Your task to perform on an android device: Search for Mexican restaurants on Maps Image 0: 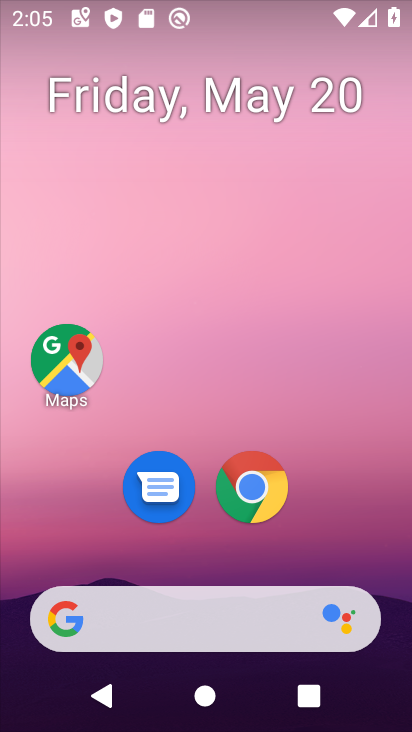
Step 0: click (55, 426)
Your task to perform on an android device: Search for Mexican restaurants on Maps Image 1: 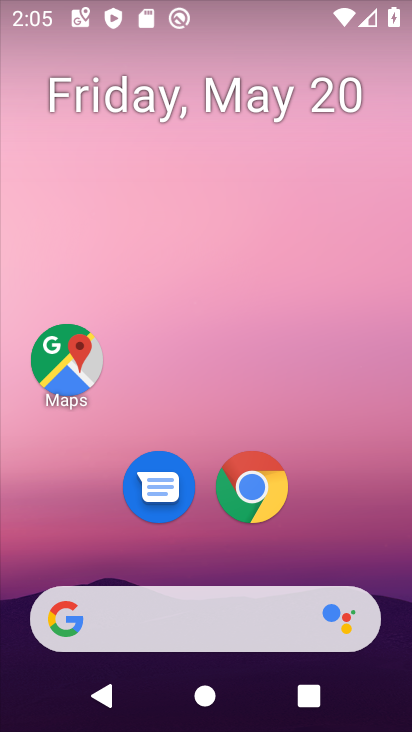
Step 1: click (45, 376)
Your task to perform on an android device: Search for Mexican restaurants on Maps Image 2: 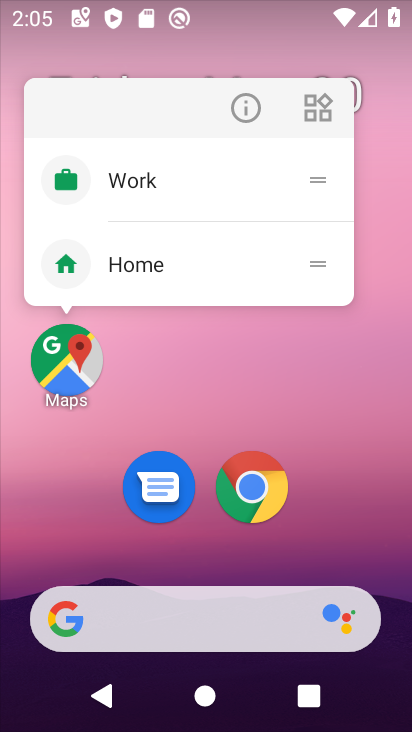
Step 2: click (45, 375)
Your task to perform on an android device: Search for Mexican restaurants on Maps Image 3: 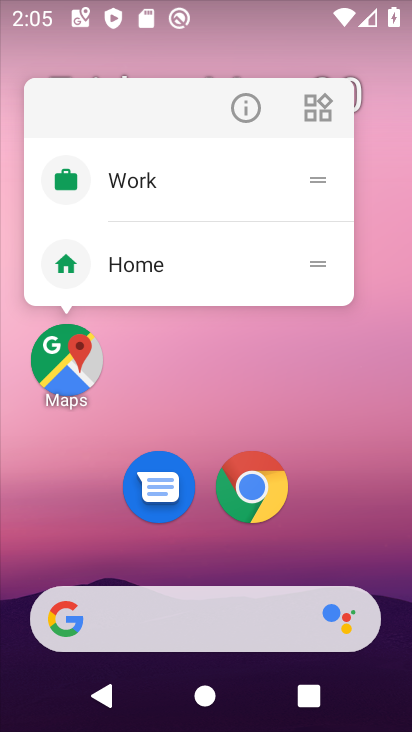
Step 3: click (356, 480)
Your task to perform on an android device: Search for Mexican restaurants on Maps Image 4: 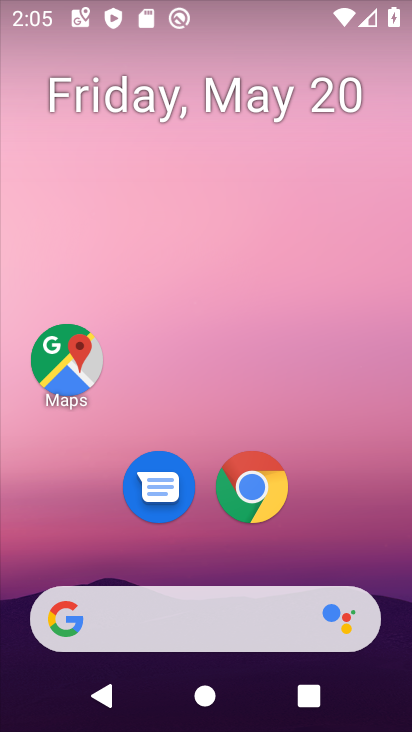
Step 4: drag from (394, 563) to (372, 130)
Your task to perform on an android device: Search for Mexican restaurants on Maps Image 5: 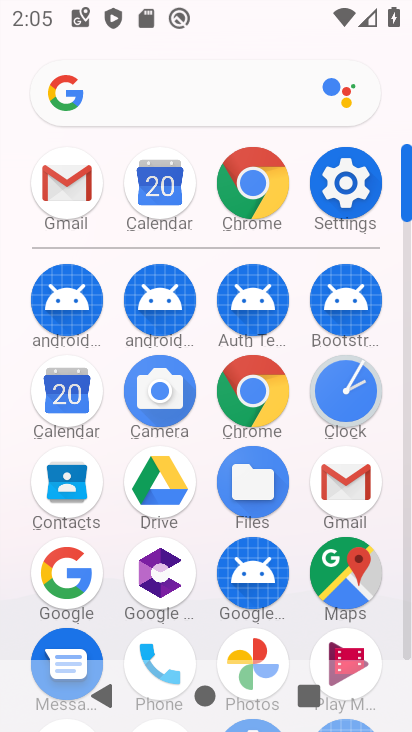
Step 5: click (344, 573)
Your task to perform on an android device: Search for Mexican restaurants on Maps Image 6: 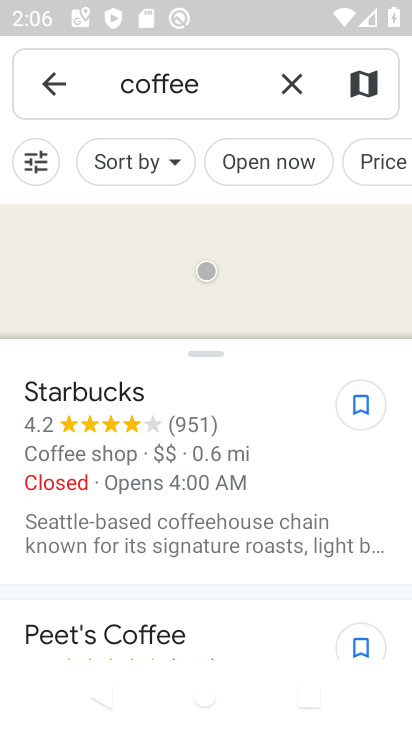
Step 6: click (295, 91)
Your task to perform on an android device: Search for Mexican restaurants on Maps Image 7: 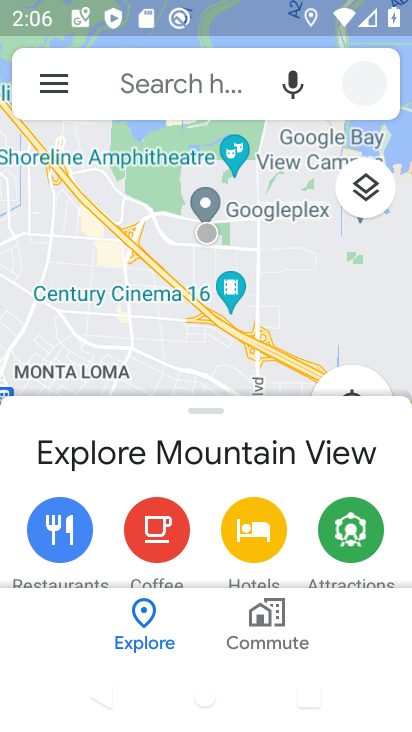
Step 7: click (225, 95)
Your task to perform on an android device: Search for Mexican restaurants on Maps Image 8: 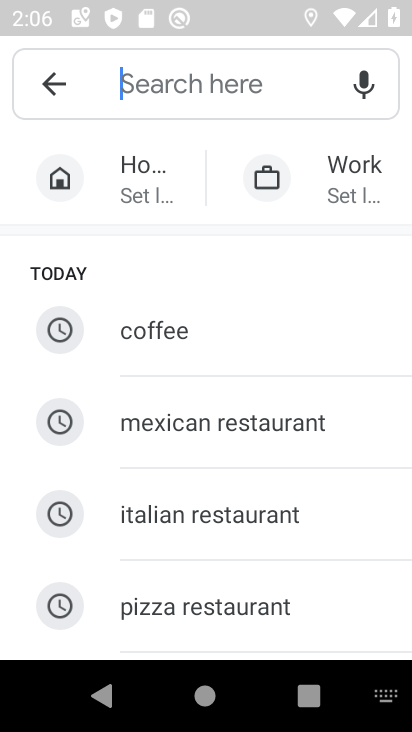
Step 8: click (230, 416)
Your task to perform on an android device: Search for Mexican restaurants on Maps Image 9: 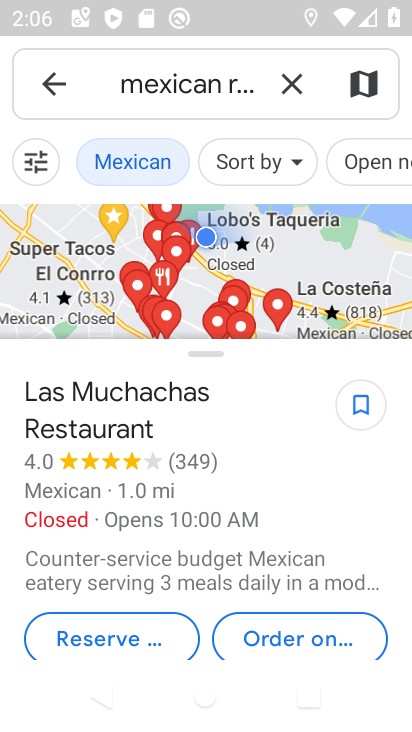
Step 9: task complete